Your task to perform on an android device: Open Google Maps Image 0: 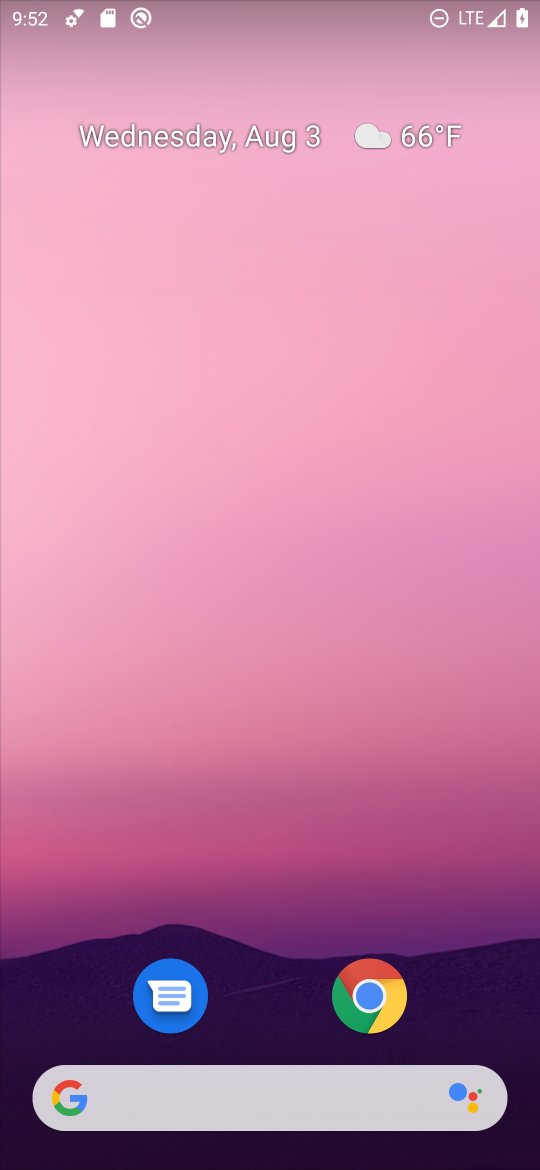
Step 0: drag from (261, 890) to (311, 1)
Your task to perform on an android device: Open Google Maps Image 1: 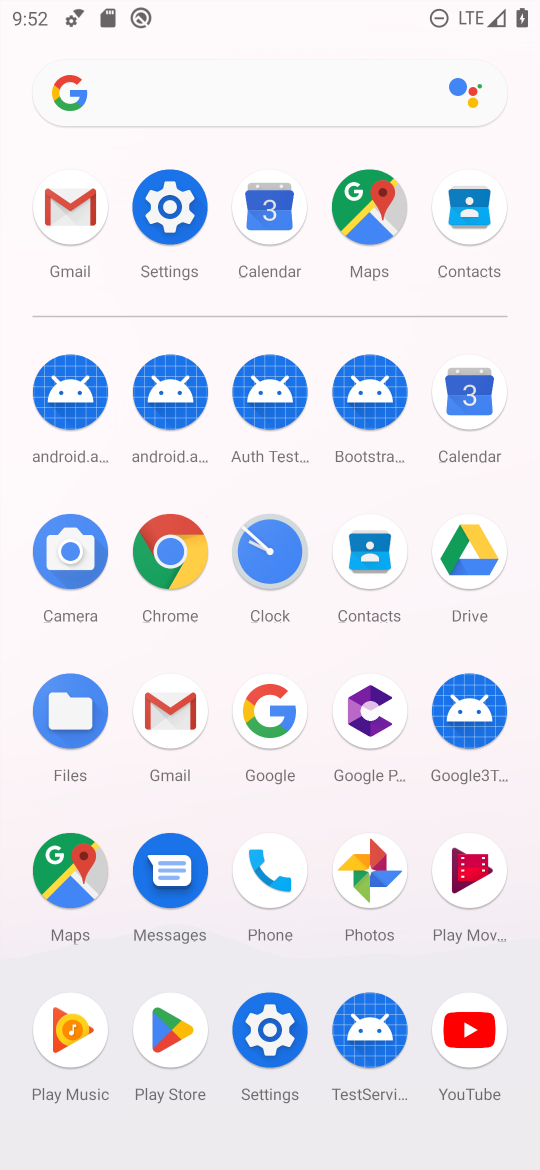
Step 1: click (372, 200)
Your task to perform on an android device: Open Google Maps Image 2: 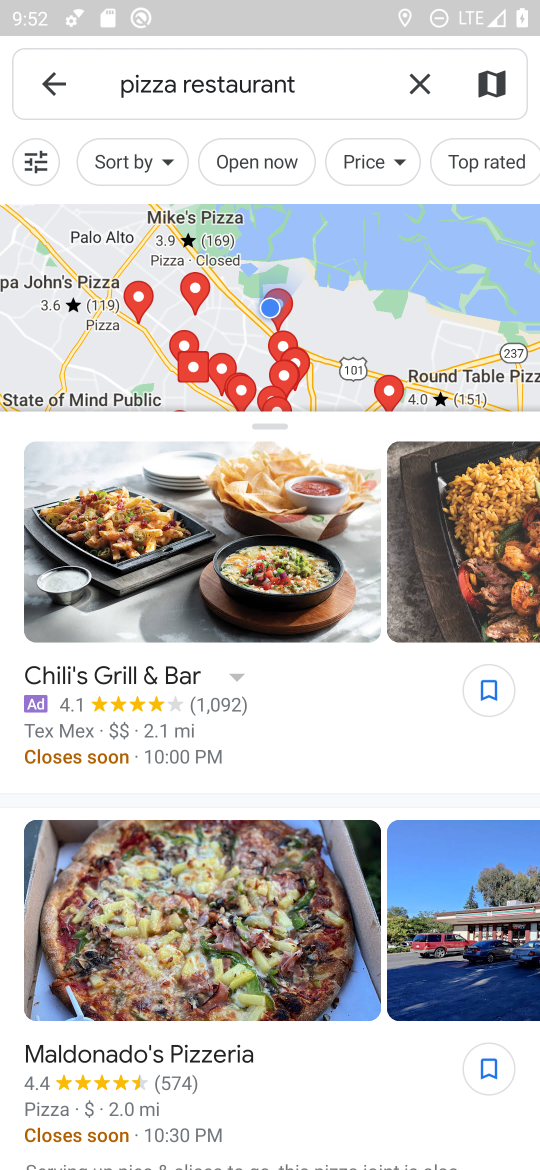
Step 2: click (415, 81)
Your task to perform on an android device: Open Google Maps Image 3: 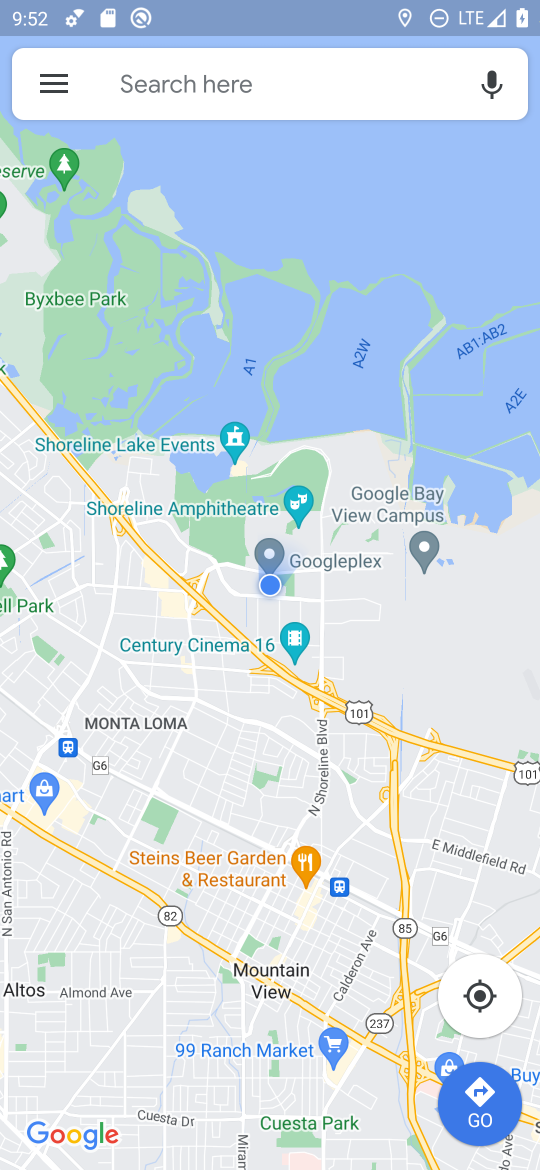
Step 3: task complete